Your task to perform on an android device: open sync settings in chrome Image 0: 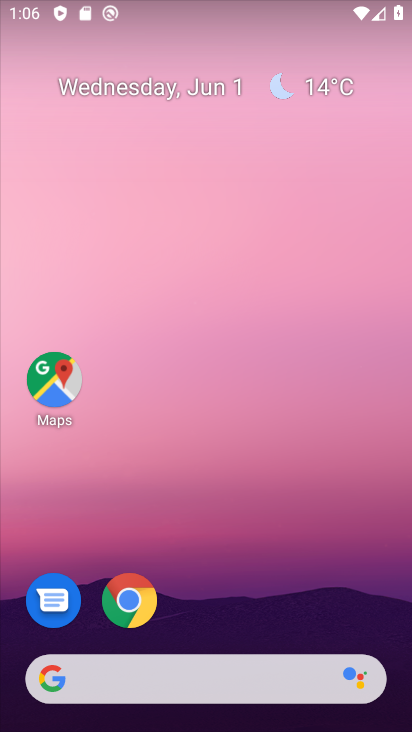
Step 0: click (131, 610)
Your task to perform on an android device: open sync settings in chrome Image 1: 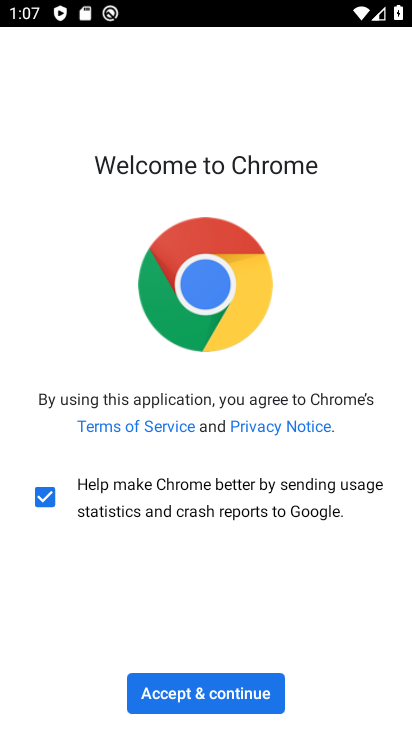
Step 1: click (223, 689)
Your task to perform on an android device: open sync settings in chrome Image 2: 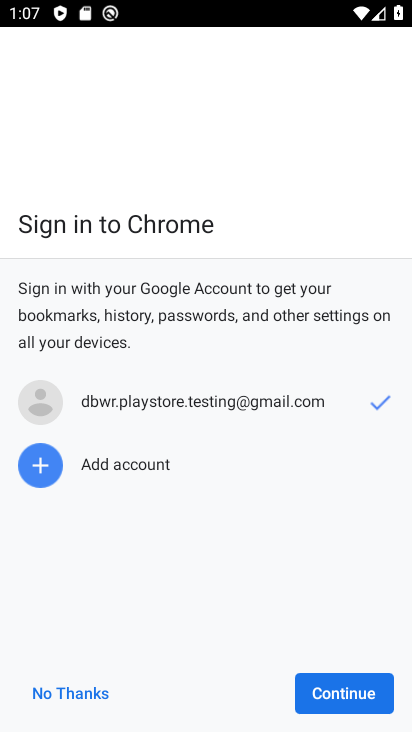
Step 2: click (359, 706)
Your task to perform on an android device: open sync settings in chrome Image 3: 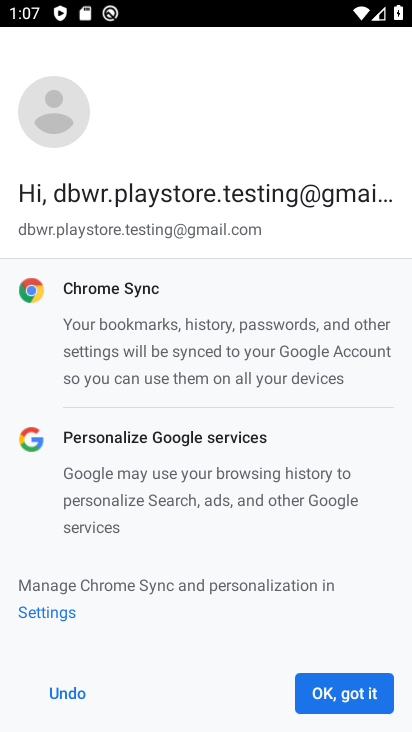
Step 3: click (377, 701)
Your task to perform on an android device: open sync settings in chrome Image 4: 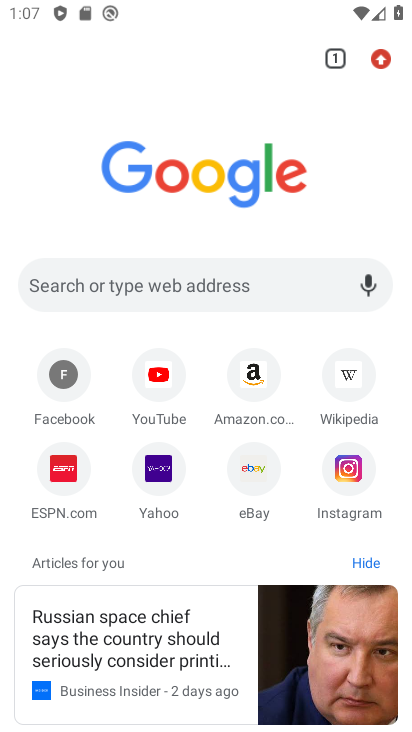
Step 4: drag from (382, 52) to (214, 553)
Your task to perform on an android device: open sync settings in chrome Image 5: 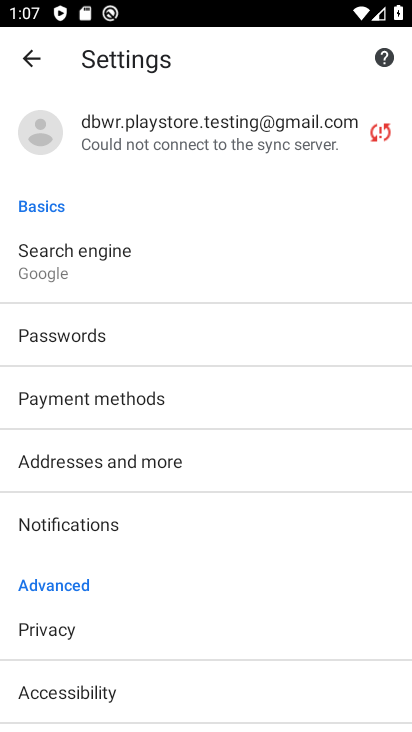
Step 5: click (196, 163)
Your task to perform on an android device: open sync settings in chrome Image 6: 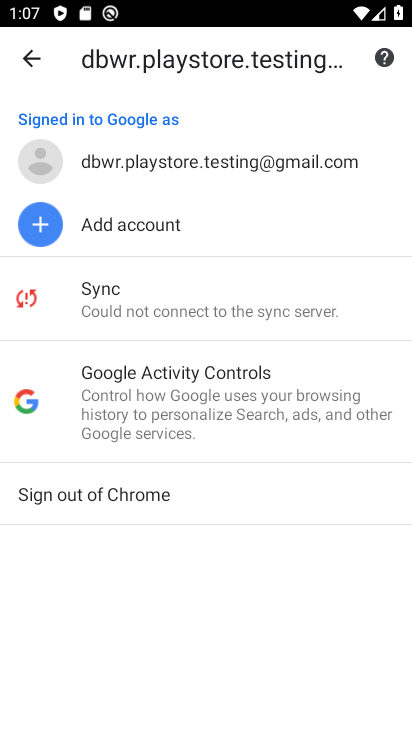
Step 6: click (197, 299)
Your task to perform on an android device: open sync settings in chrome Image 7: 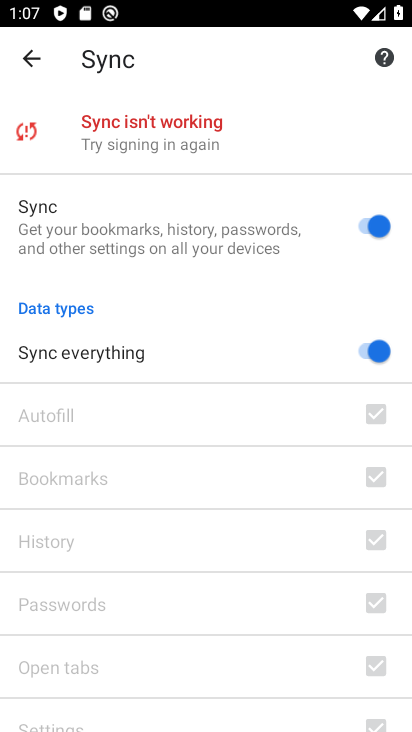
Step 7: task complete